Your task to perform on an android device: Open privacy settings Image 0: 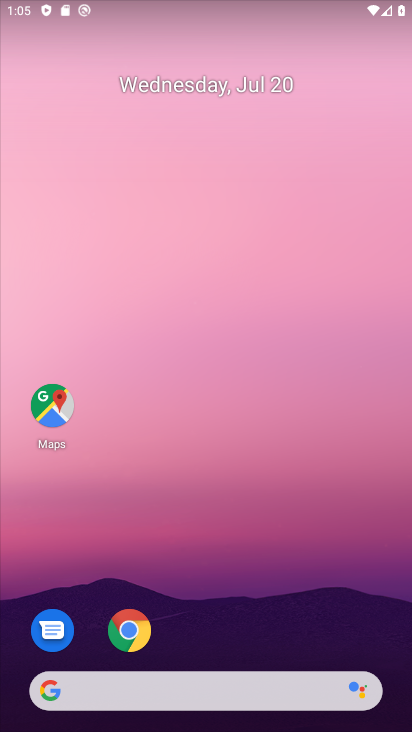
Step 0: drag from (250, 433) to (250, 5)
Your task to perform on an android device: Open privacy settings Image 1: 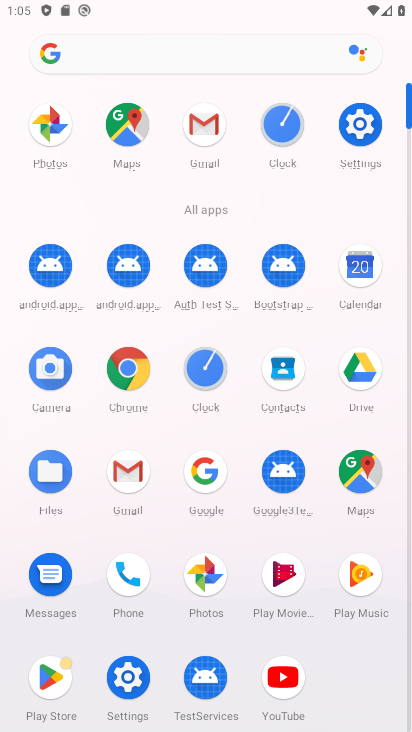
Step 1: click (360, 113)
Your task to perform on an android device: Open privacy settings Image 2: 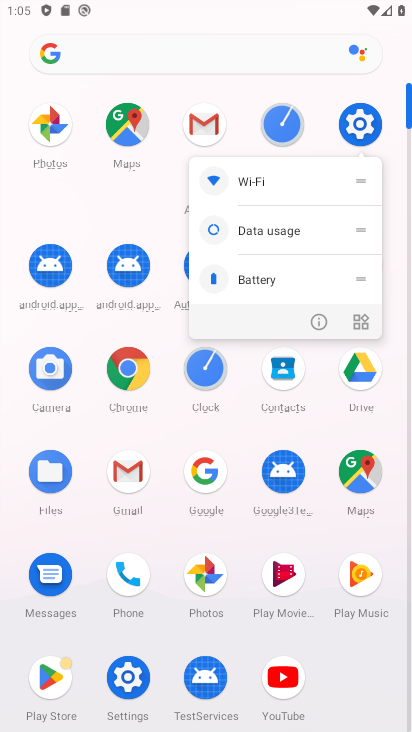
Step 2: click (360, 118)
Your task to perform on an android device: Open privacy settings Image 3: 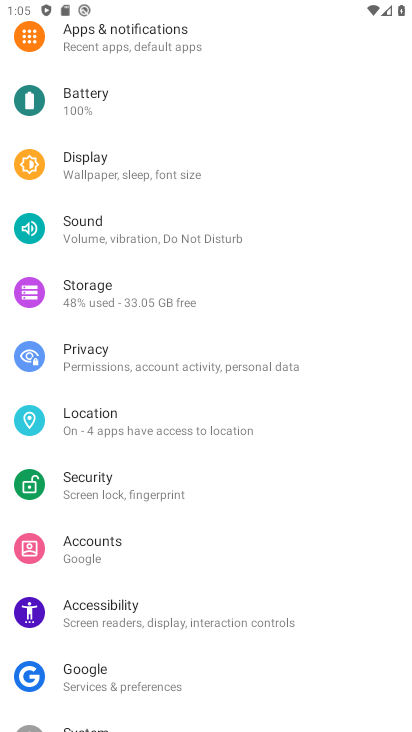
Step 3: drag from (203, 124) to (280, 82)
Your task to perform on an android device: Open privacy settings Image 4: 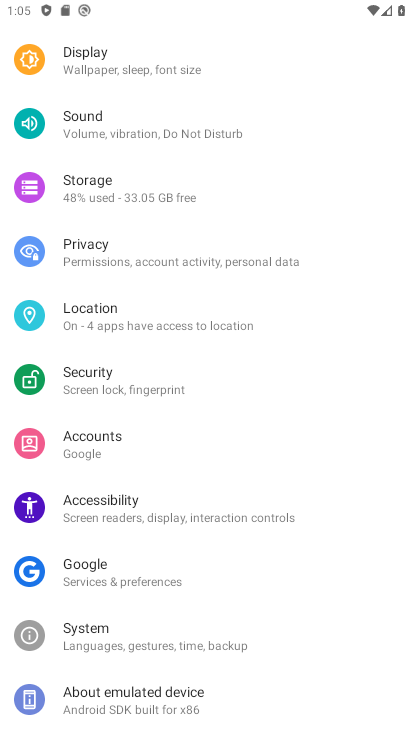
Step 4: click (147, 265)
Your task to perform on an android device: Open privacy settings Image 5: 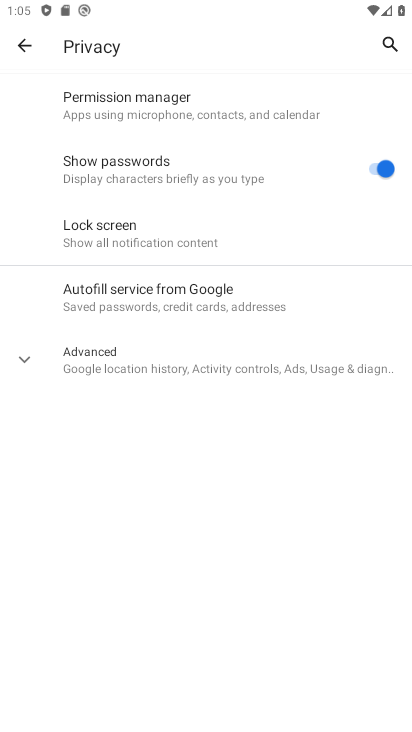
Step 5: task complete